Your task to perform on an android device: turn off javascript in the chrome app Image 0: 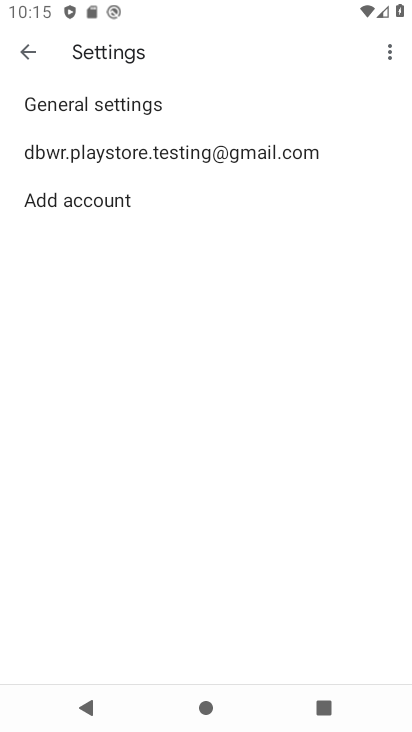
Step 0: press home button
Your task to perform on an android device: turn off javascript in the chrome app Image 1: 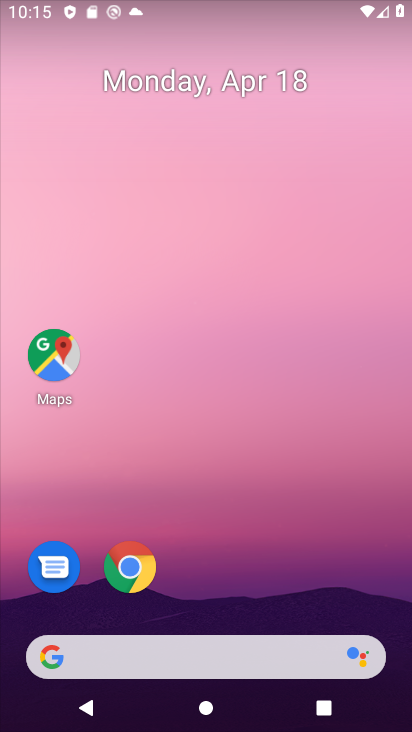
Step 1: click (130, 574)
Your task to perform on an android device: turn off javascript in the chrome app Image 2: 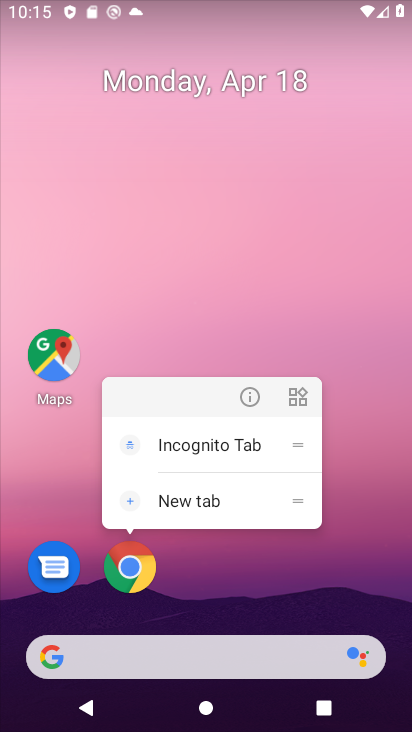
Step 2: click (130, 574)
Your task to perform on an android device: turn off javascript in the chrome app Image 3: 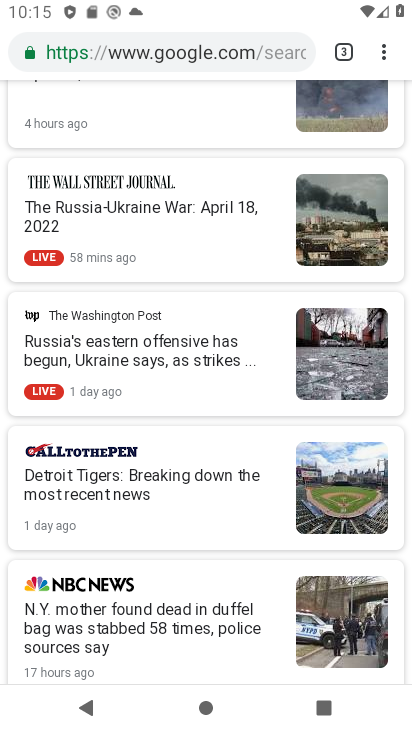
Step 3: click (385, 52)
Your task to perform on an android device: turn off javascript in the chrome app Image 4: 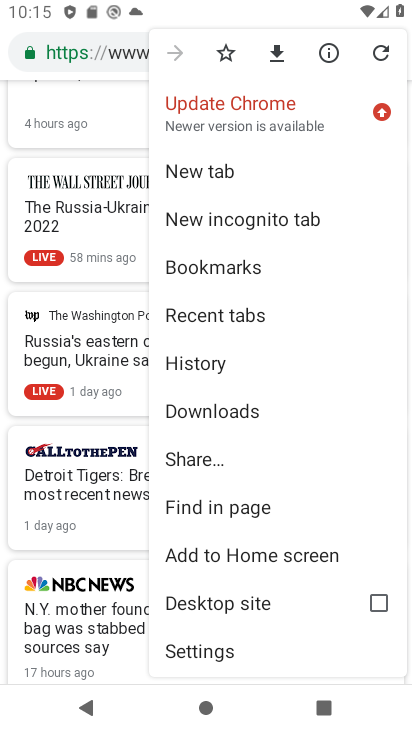
Step 4: click (223, 649)
Your task to perform on an android device: turn off javascript in the chrome app Image 5: 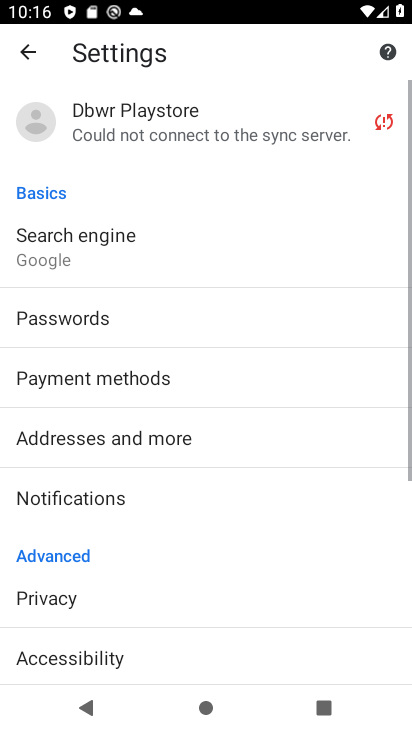
Step 5: drag from (236, 579) to (257, 331)
Your task to perform on an android device: turn off javascript in the chrome app Image 6: 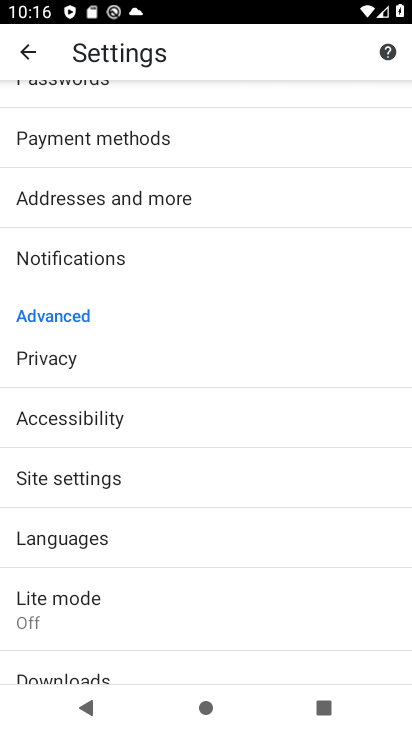
Step 6: click (86, 470)
Your task to perform on an android device: turn off javascript in the chrome app Image 7: 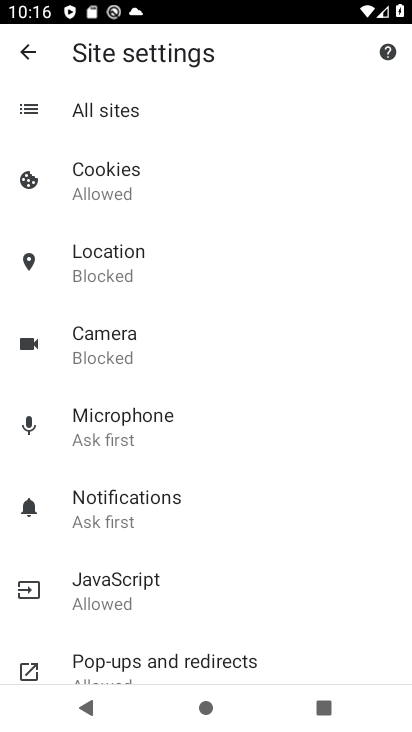
Step 7: click (91, 600)
Your task to perform on an android device: turn off javascript in the chrome app Image 8: 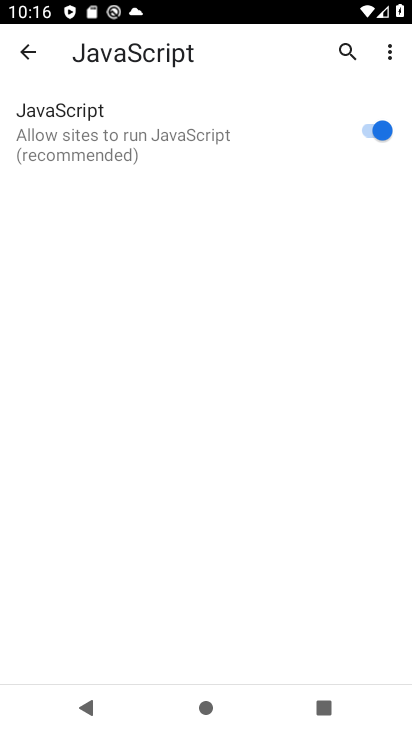
Step 8: click (383, 130)
Your task to perform on an android device: turn off javascript in the chrome app Image 9: 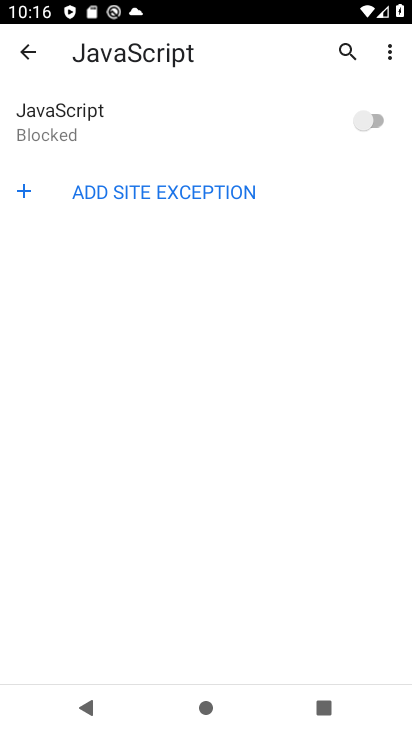
Step 9: task complete